Your task to perform on an android device: toggle translation in the chrome app Image 0: 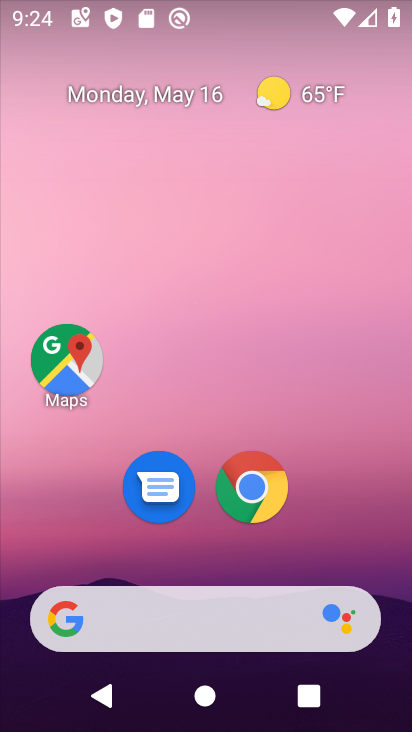
Step 0: drag from (378, 539) to (365, 124)
Your task to perform on an android device: toggle translation in the chrome app Image 1: 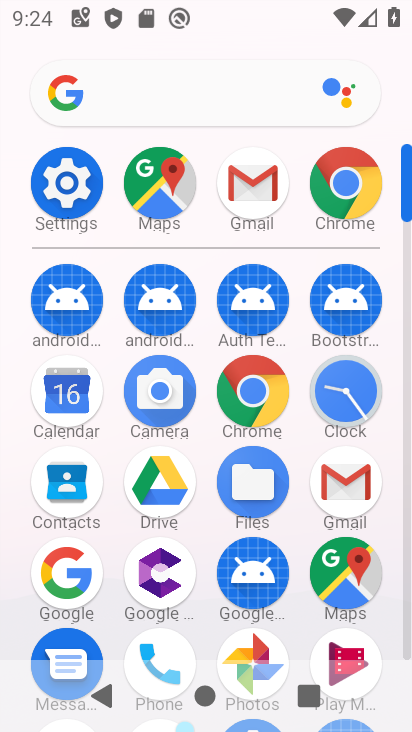
Step 1: click (251, 401)
Your task to perform on an android device: toggle translation in the chrome app Image 2: 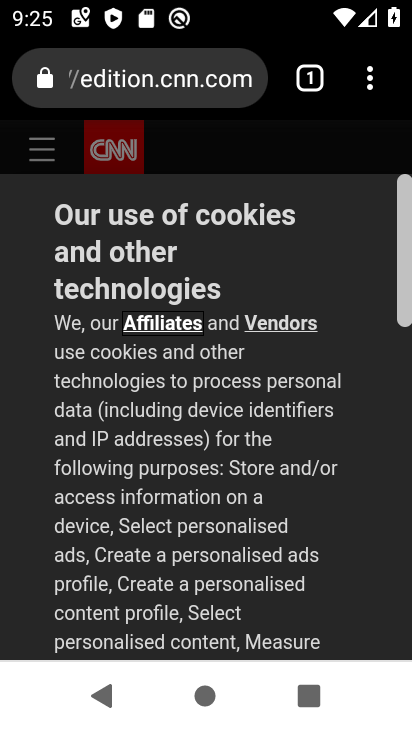
Step 2: click (371, 87)
Your task to perform on an android device: toggle translation in the chrome app Image 3: 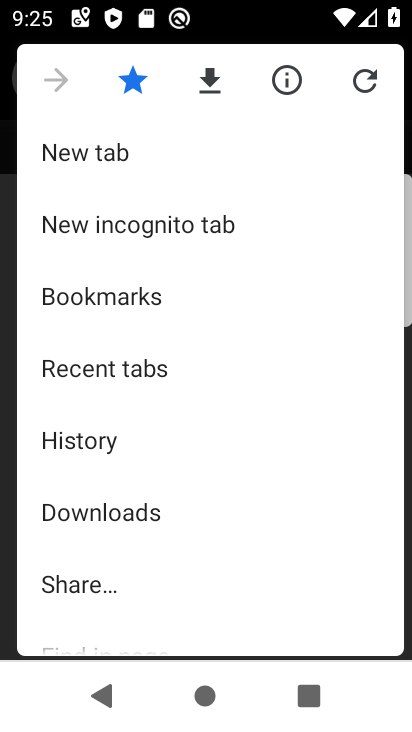
Step 3: drag from (265, 544) to (256, 355)
Your task to perform on an android device: toggle translation in the chrome app Image 4: 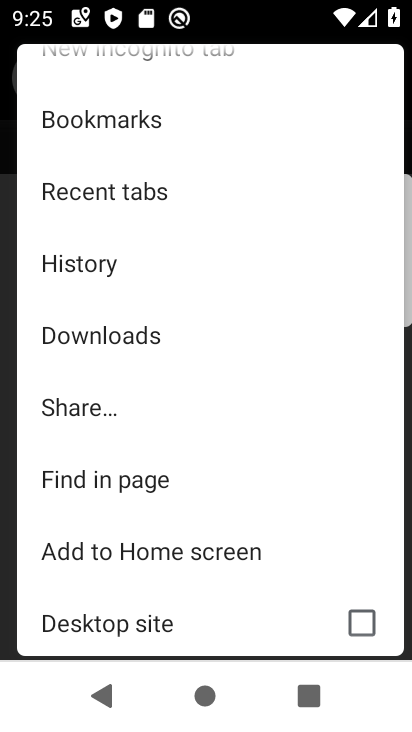
Step 4: drag from (270, 587) to (271, 320)
Your task to perform on an android device: toggle translation in the chrome app Image 5: 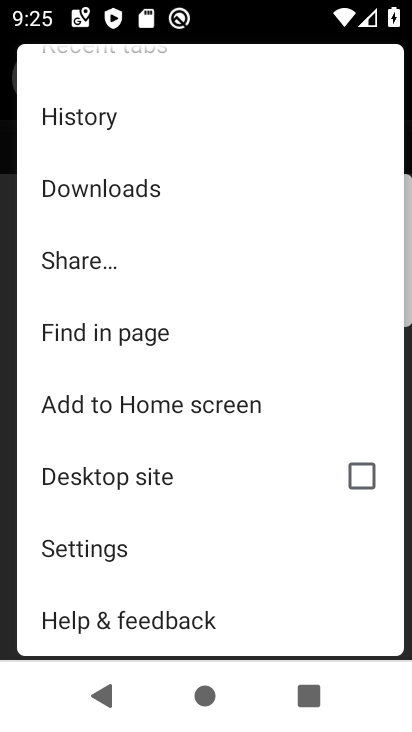
Step 5: drag from (246, 557) to (257, 382)
Your task to perform on an android device: toggle translation in the chrome app Image 6: 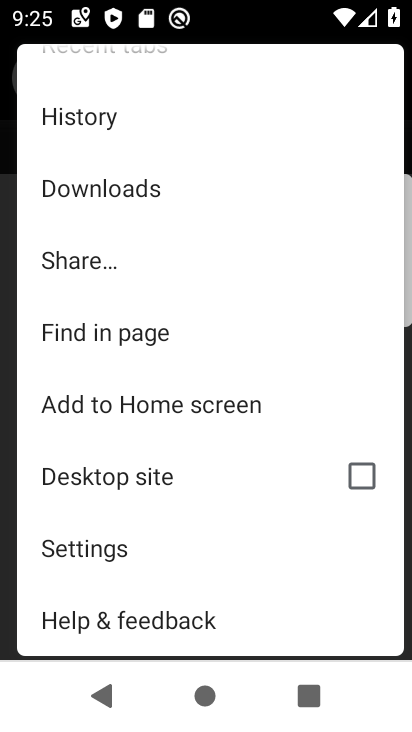
Step 6: click (158, 554)
Your task to perform on an android device: toggle translation in the chrome app Image 7: 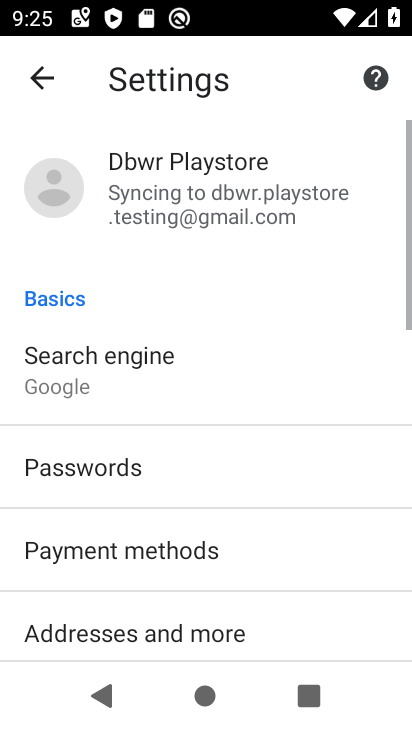
Step 7: drag from (256, 554) to (268, 398)
Your task to perform on an android device: toggle translation in the chrome app Image 8: 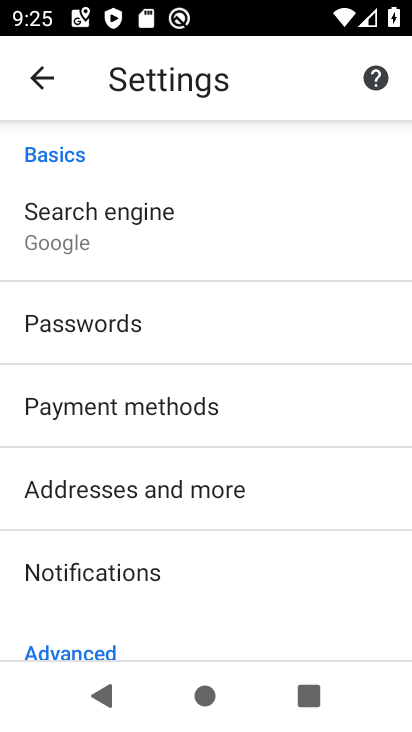
Step 8: drag from (258, 607) to (272, 454)
Your task to perform on an android device: toggle translation in the chrome app Image 9: 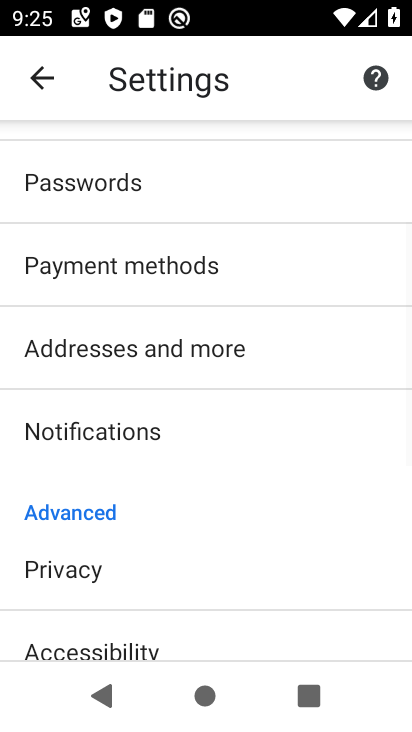
Step 9: drag from (261, 619) to (279, 475)
Your task to perform on an android device: toggle translation in the chrome app Image 10: 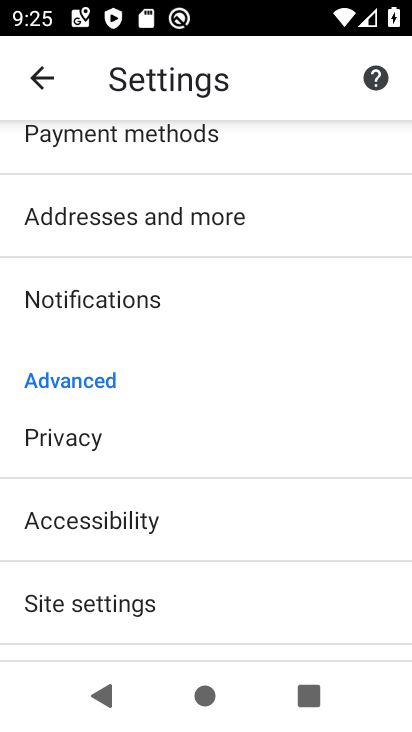
Step 10: drag from (247, 622) to (258, 510)
Your task to perform on an android device: toggle translation in the chrome app Image 11: 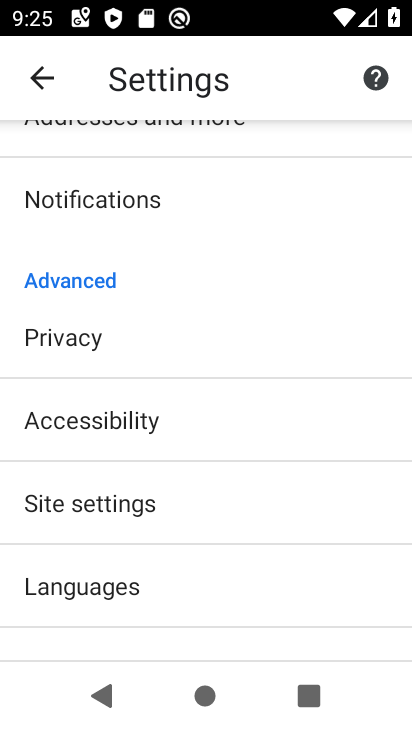
Step 11: drag from (221, 576) to (249, 432)
Your task to perform on an android device: toggle translation in the chrome app Image 12: 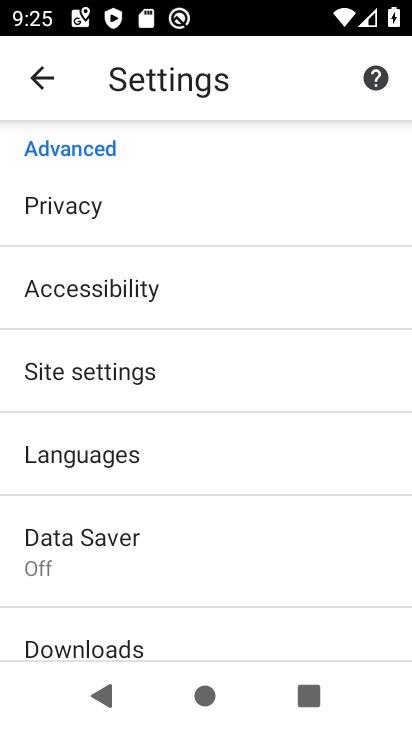
Step 12: click (155, 447)
Your task to perform on an android device: toggle translation in the chrome app Image 13: 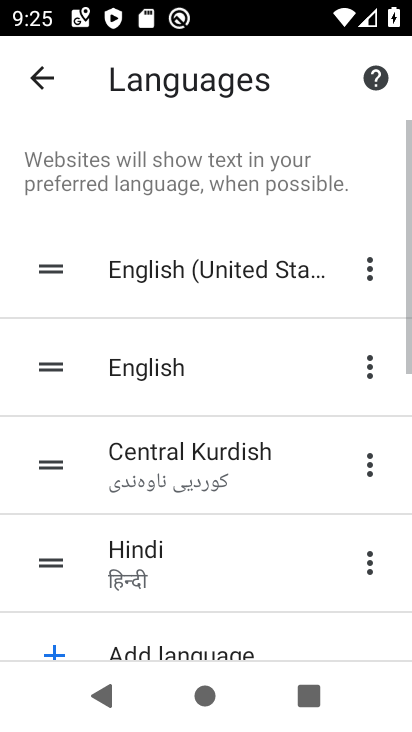
Step 13: drag from (258, 620) to (280, 475)
Your task to perform on an android device: toggle translation in the chrome app Image 14: 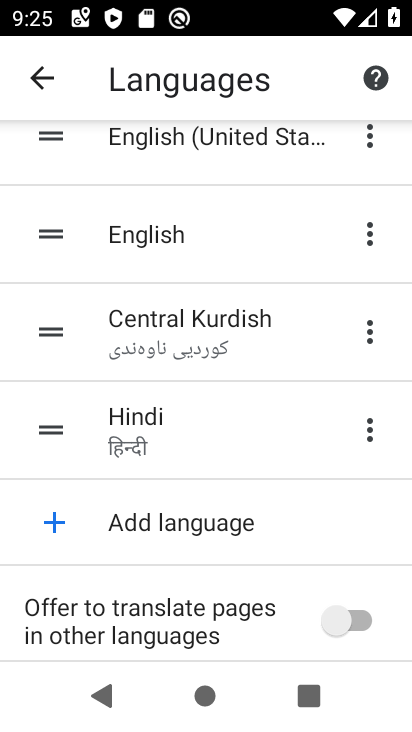
Step 14: drag from (262, 636) to (275, 529)
Your task to perform on an android device: toggle translation in the chrome app Image 15: 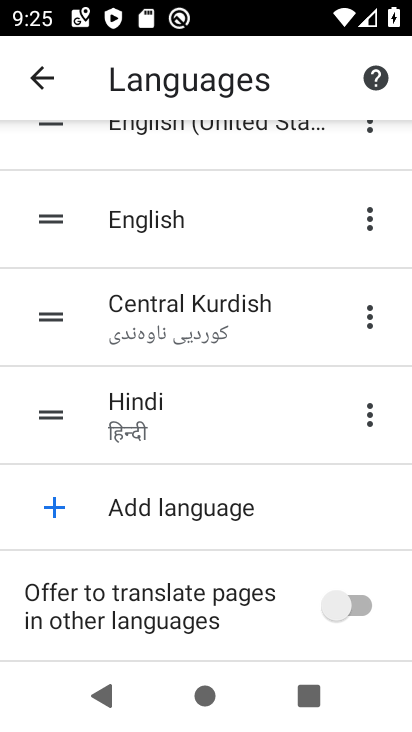
Step 15: click (342, 604)
Your task to perform on an android device: toggle translation in the chrome app Image 16: 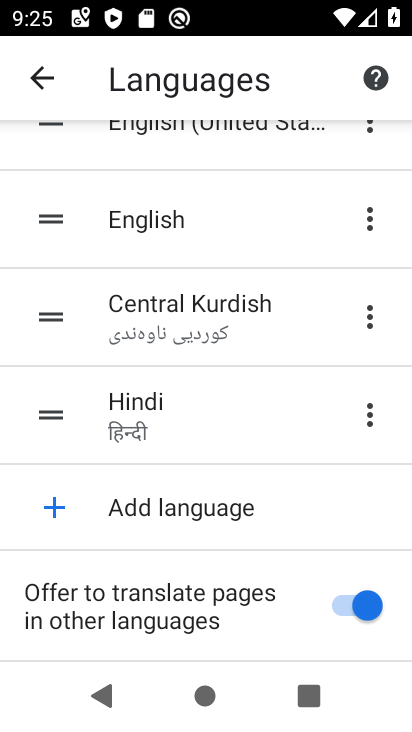
Step 16: task complete